Your task to perform on an android device: read, delete, or share a saved page in the chrome app Image 0: 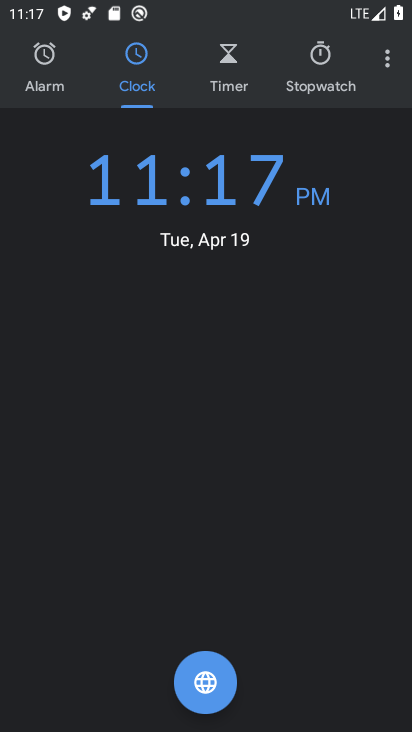
Step 0: press home button
Your task to perform on an android device: read, delete, or share a saved page in the chrome app Image 1: 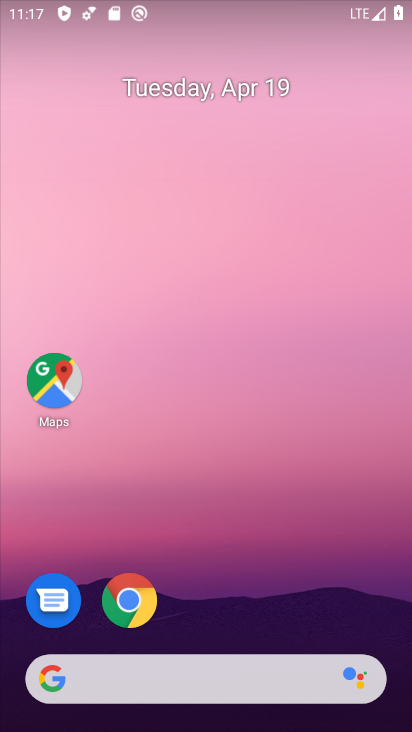
Step 1: click (126, 592)
Your task to perform on an android device: read, delete, or share a saved page in the chrome app Image 2: 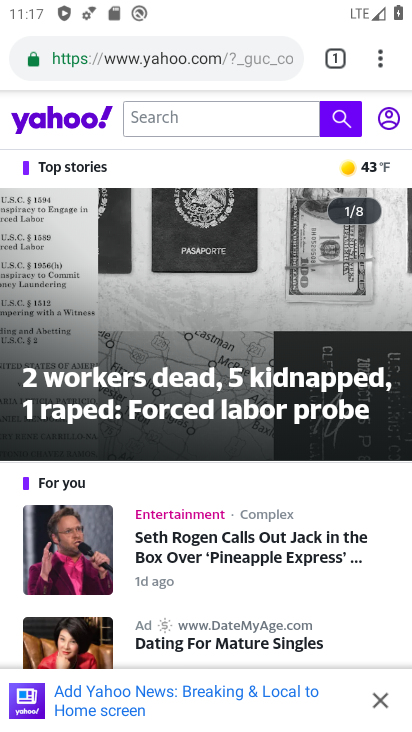
Step 2: click (382, 66)
Your task to perform on an android device: read, delete, or share a saved page in the chrome app Image 3: 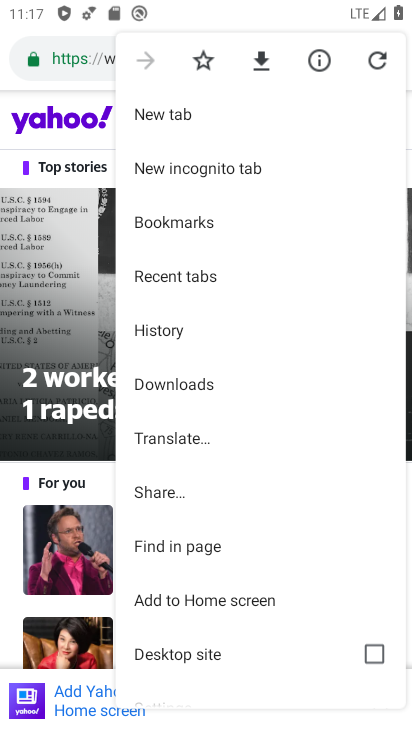
Step 3: click (159, 385)
Your task to perform on an android device: read, delete, or share a saved page in the chrome app Image 4: 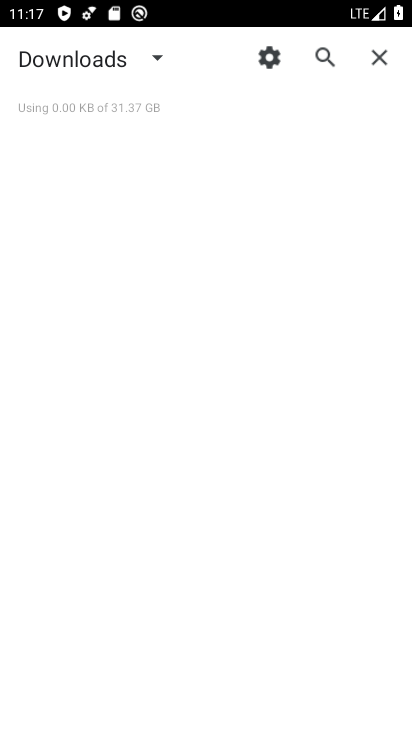
Step 4: click (156, 59)
Your task to perform on an android device: read, delete, or share a saved page in the chrome app Image 5: 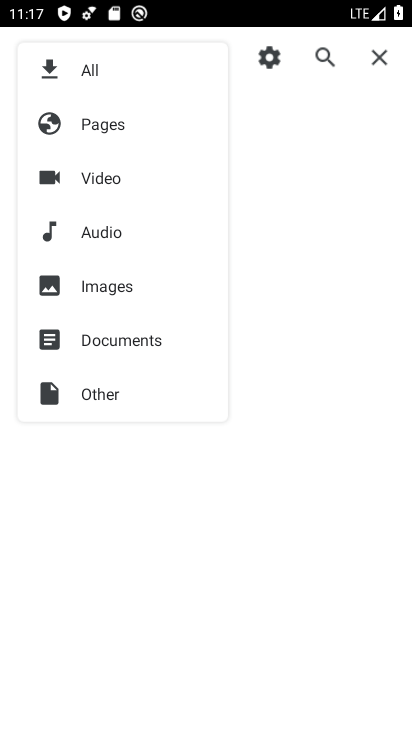
Step 5: click (114, 123)
Your task to perform on an android device: read, delete, or share a saved page in the chrome app Image 6: 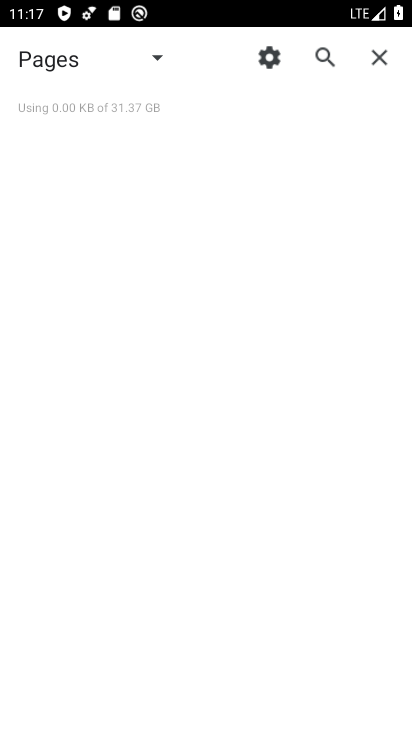
Step 6: task complete